Your task to perform on an android device: Show me the alarms in the clock app Image 0: 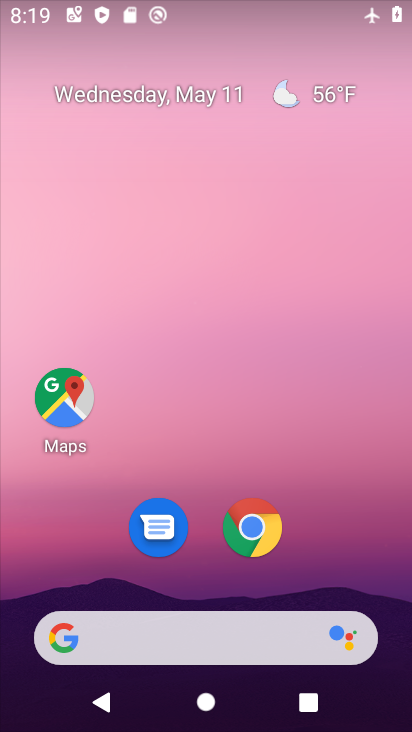
Step 0: drag from (65, 600) to (196, 233)
Your task to perform on an android device: Show me the alarms in the clock app Image 1: 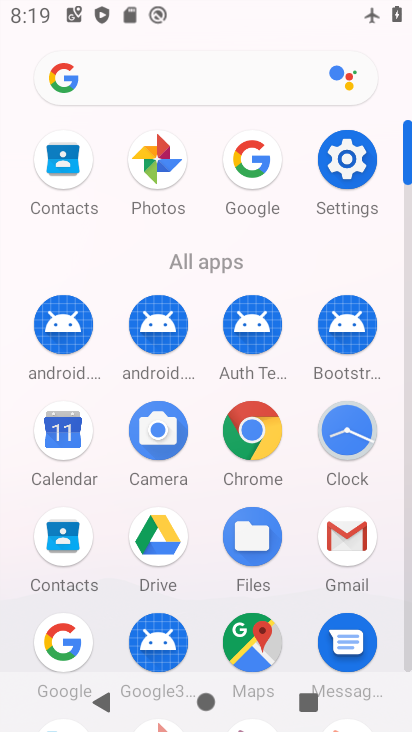
Step 1: click (361, 435)
Your task to perform on an android device: Show me the alarms in the clock app Image 2: 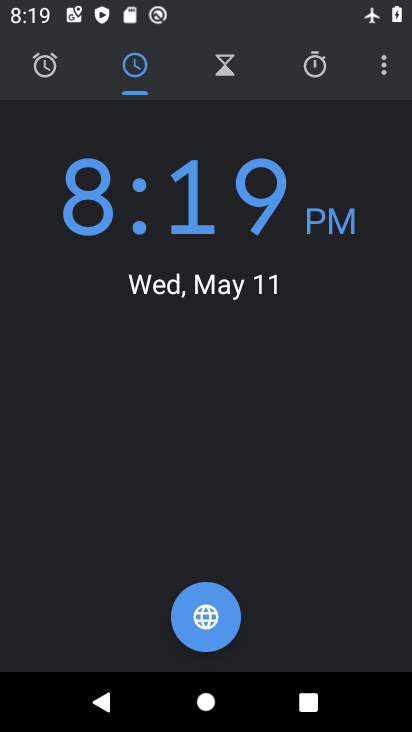
Step 2: click (38, 67)
Your task to perform on an android device: Show me the alarms in the clock app Image 3: 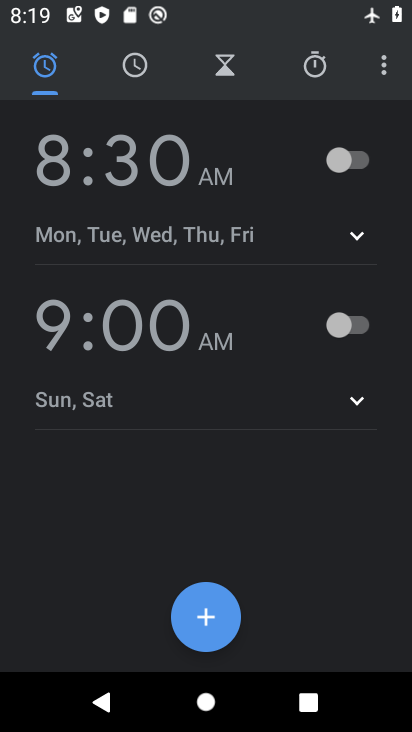
Step 3: task complete